Your task to perform on an android device: What's on my calendar tomorrow? Image 0: 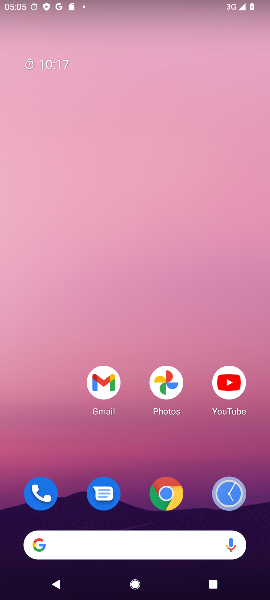
Step 0: press home button
Your task to perform on an android device: What's on my calendar tomorrow? Image 1: 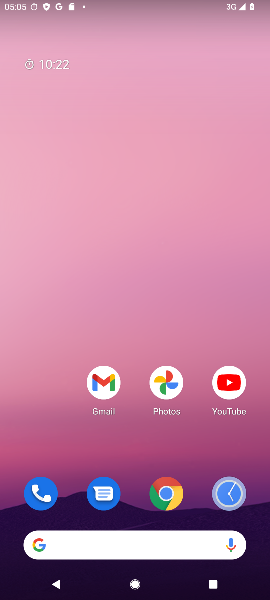
Step 1: drag from (38, 441) to (52, 162)
Your task to perform on an android device: What's on my calendar tomorrow? Image 2: 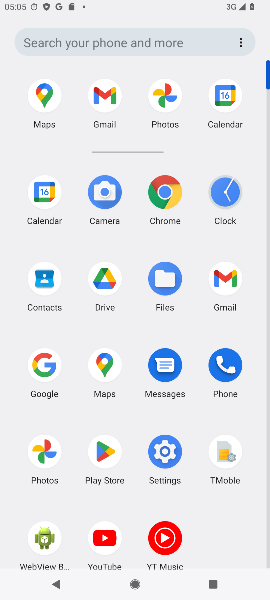
Step 2: click (39, 189)
Your task to perform on an android device: What's on my calendar tomorrow? Image 3: 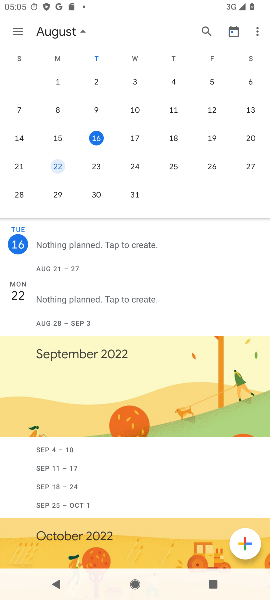
Step 3: click (136, 139)
Your task to perform on an android device: What's on my calendar tomorrow? Image 4: 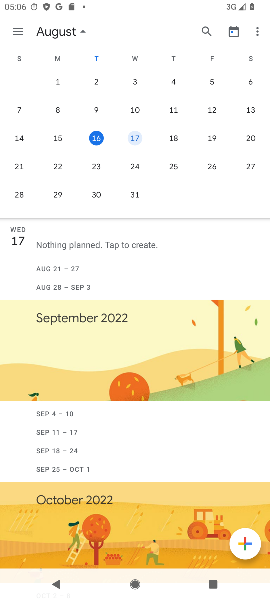
Step 4: task complete